Your task to perform on an android device: Turn off the flashlight Image 0: 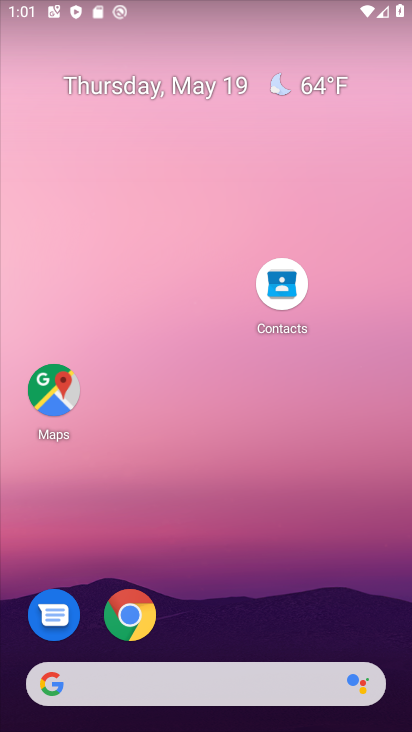
Step 0: drag from (298, 625) to (275, 100)
Your task to perform on an android device: Turn off the flashlight Image 1: 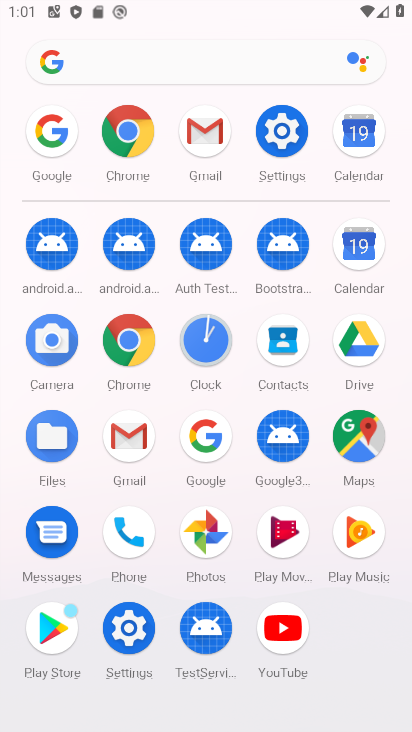
Step 1: task complete